Your task to perform on an android device: change your default location settings in chrome Image 0: 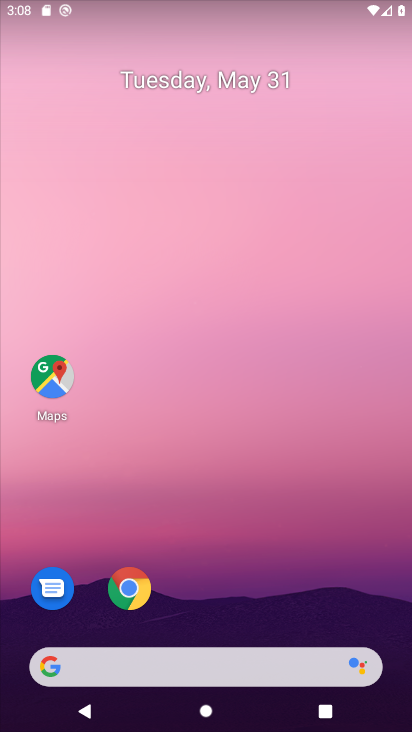
Step 0: drag from (209, 622) to (209, 155)
Your task to perform on an android device: change your default location settings in chrome Image 1: 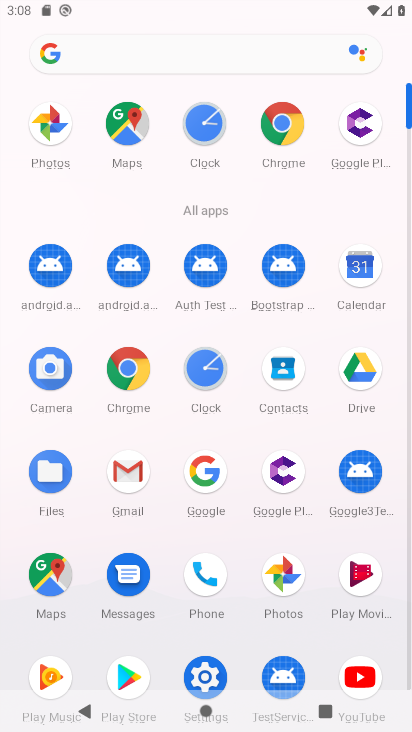
Step 1: click (294, 134)
Your task to perform on an android device: change your default location settings in chrome Image 2: 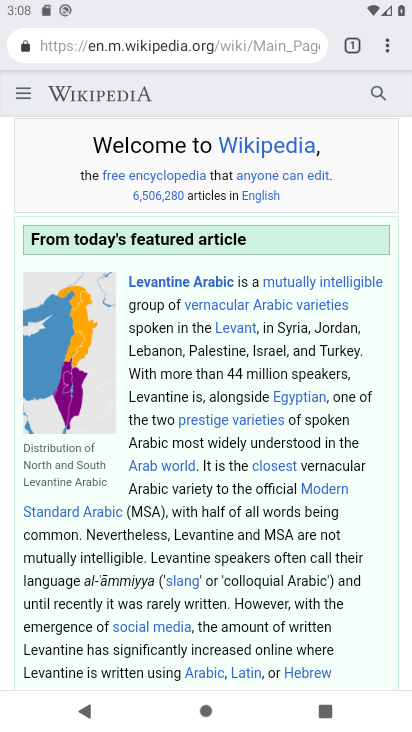
Step 2: click (389, 49)
Your task to perform on an android device: change your default location settings in chrome Image 3: 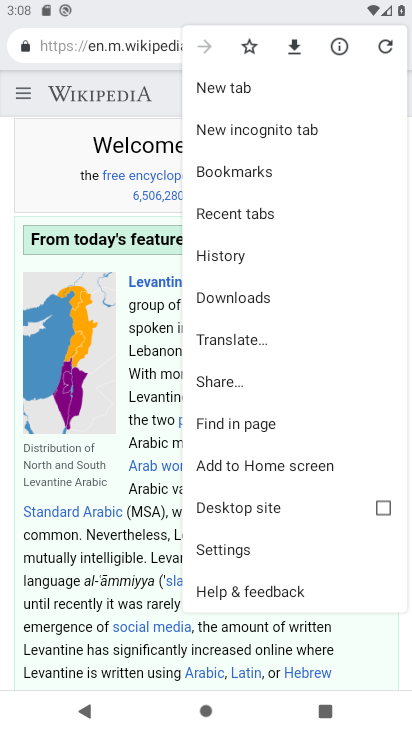
Step 3: click (234, 543)
Your task to perform on an android device: change your default location settings in chrome Image 4: 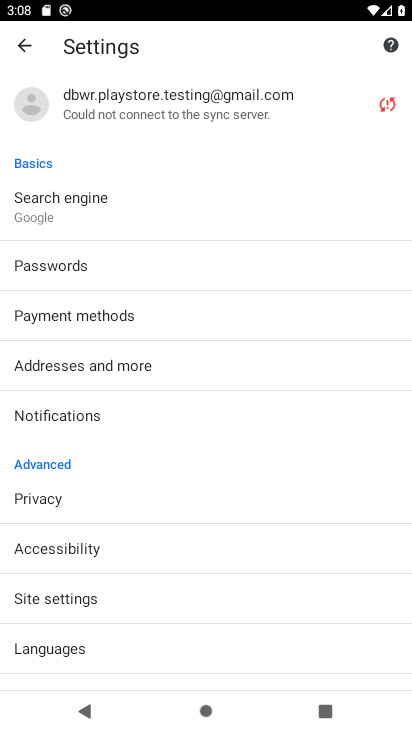
Step 4: click (102, 598)
Your task to perform on an android device: change your default location settings in chrome Image 5: 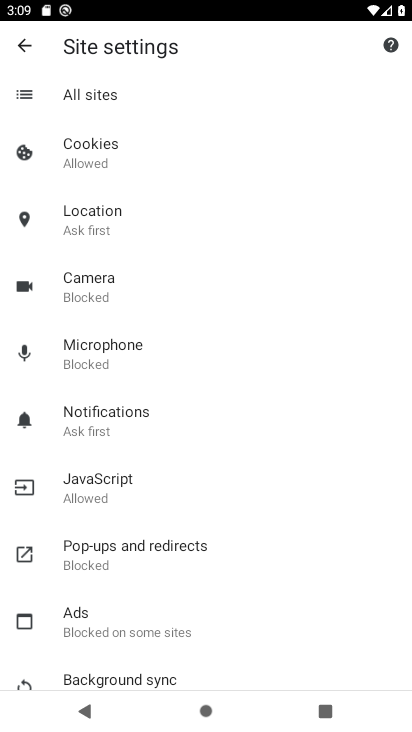
Step 5: click (130, 230)
Your task to perform on an android device: change your default location settings in chrome Image 6: 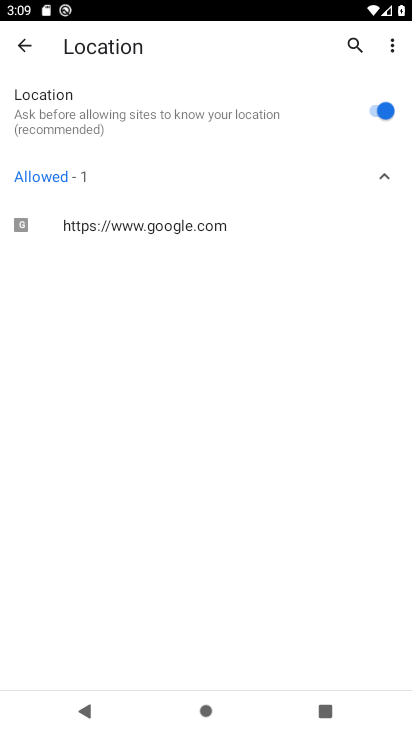
Step 6: click (377, 106)
Your task to perform on an android device: change your default location settings in chrome Image 7: 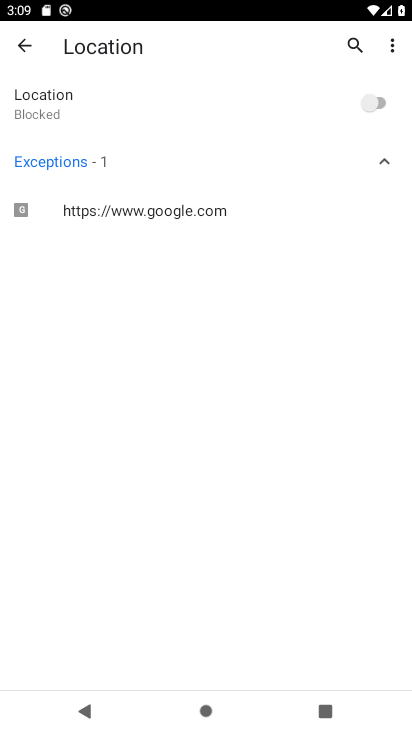
Step 7: task complete